Your task to perform on an android device: Open location settings Image 0: 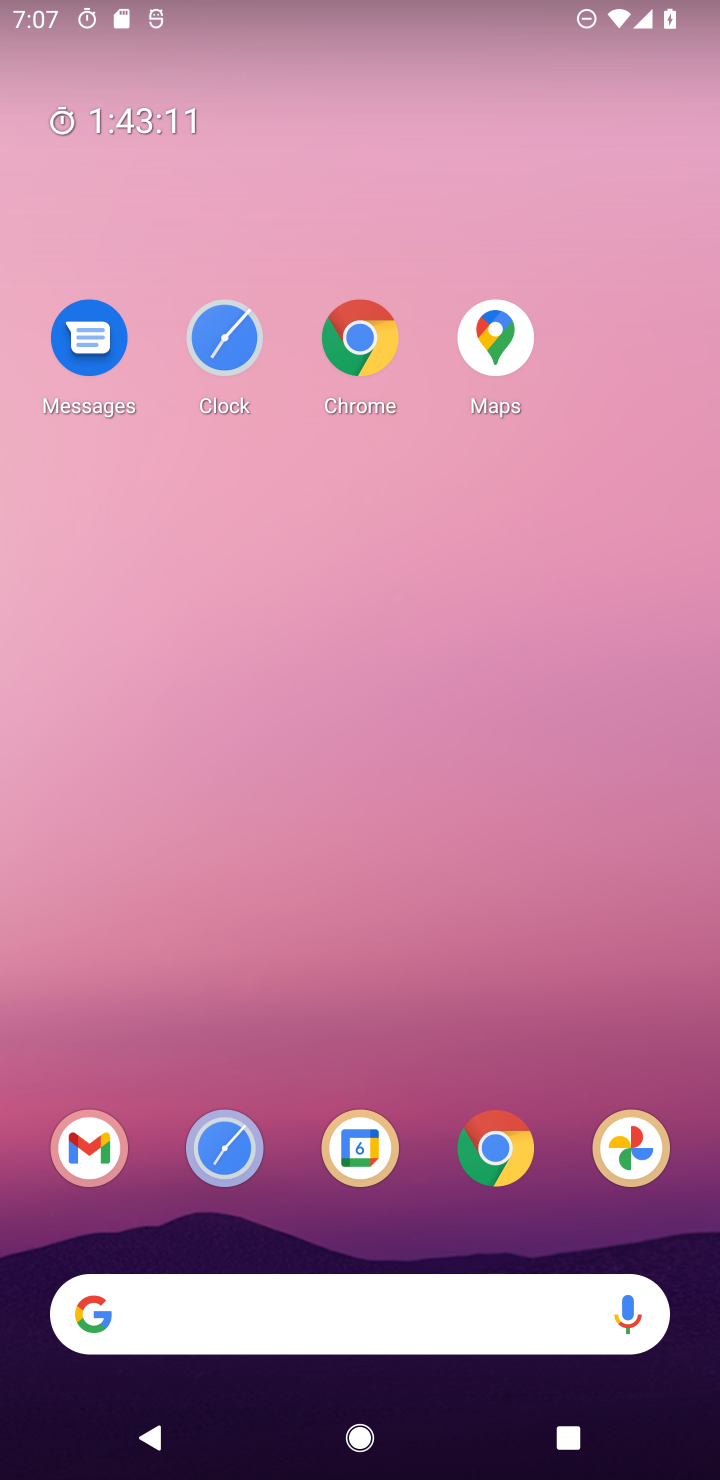
Step 0: drag from (389, 1211) to (481, 331)
Your task to perform on an android device: Open location settings Image 1: 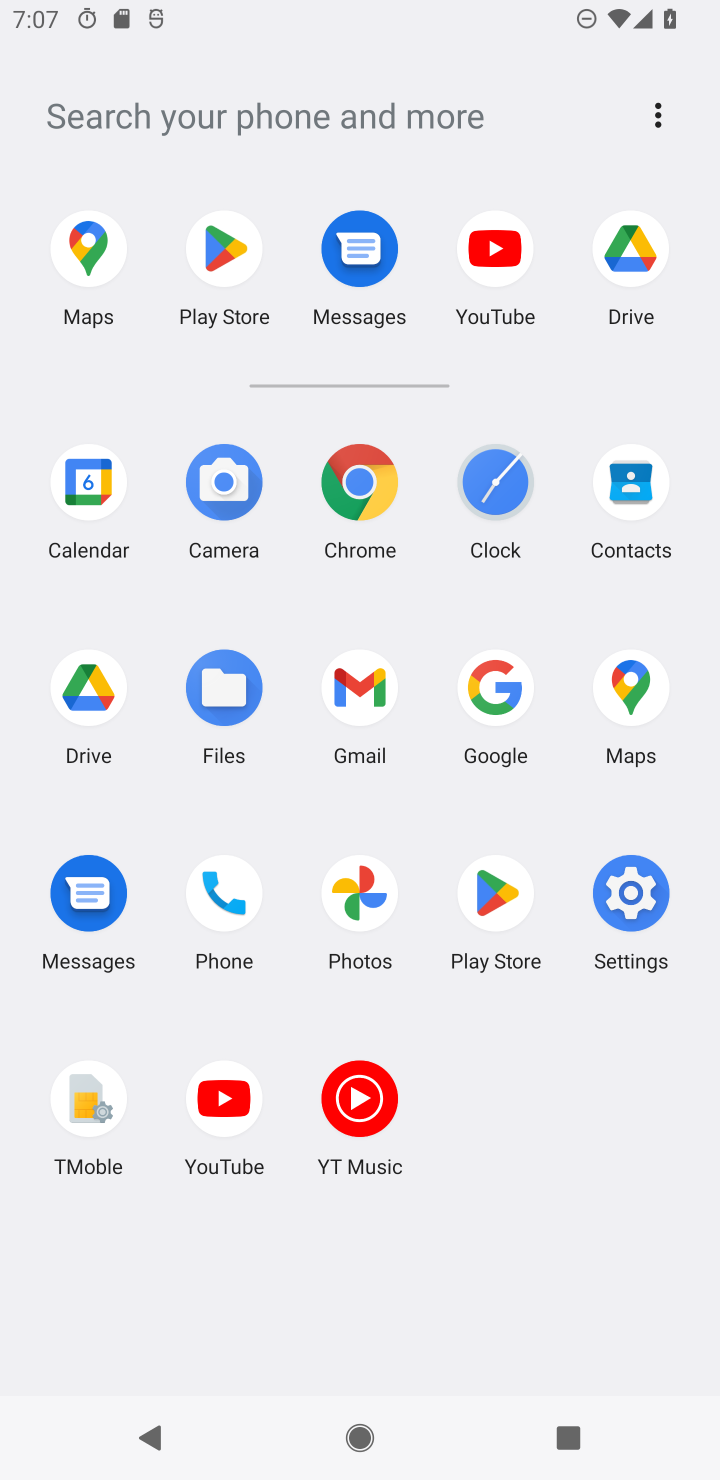
Step 1: click (492, 489)
Your task to perform on an android device: Open location settings Image 2: 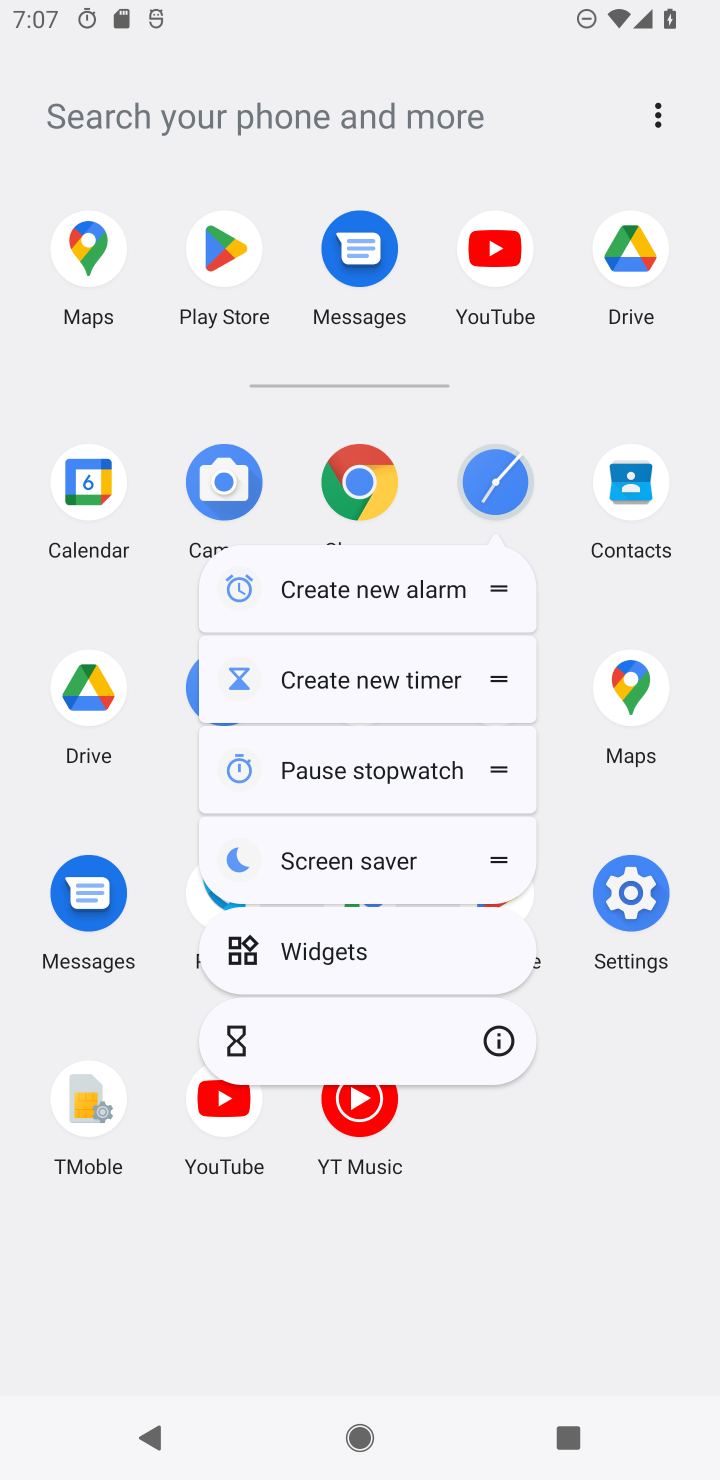
Step 2: click (632, 896)
Your task to perform on an android device: Open location settings Image 3: 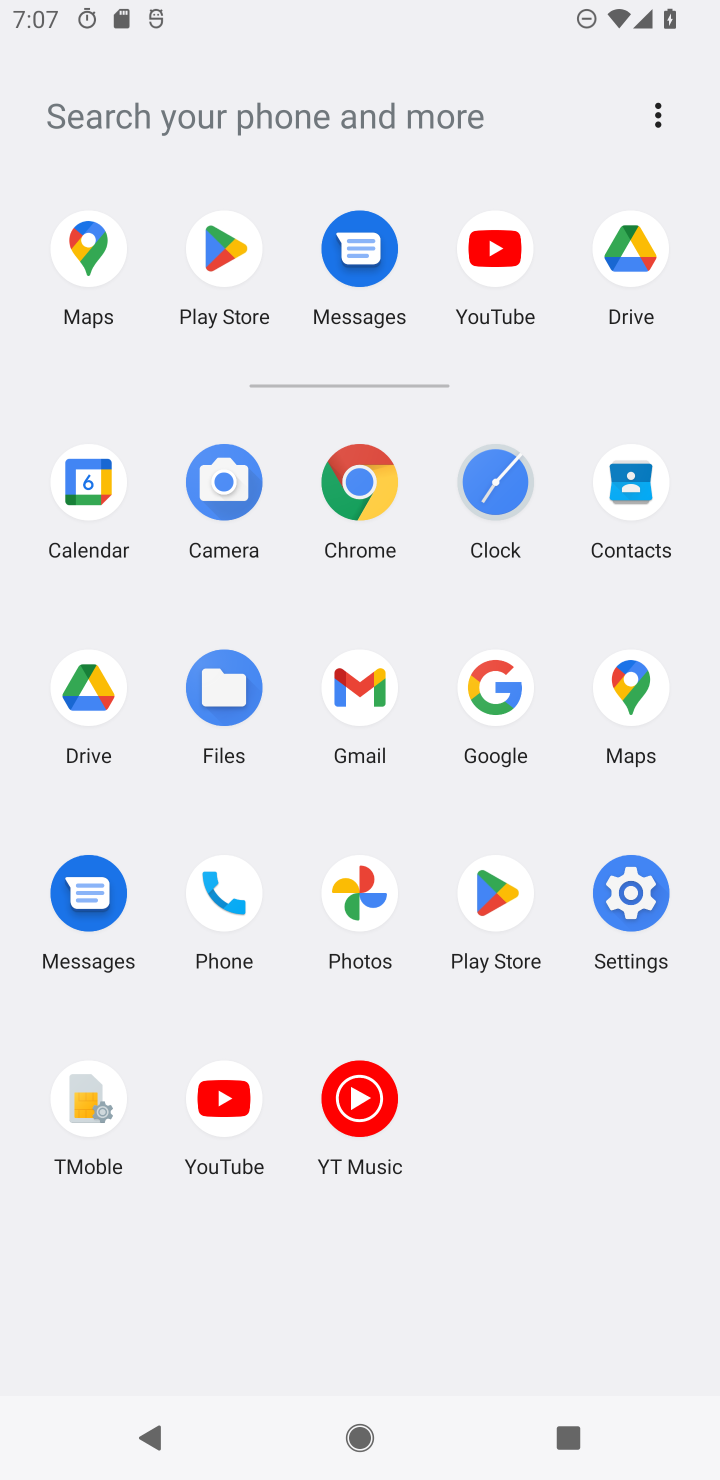
Step 3: click (632, 896)
Your task to perform on an android device: Open location settings Image 4: 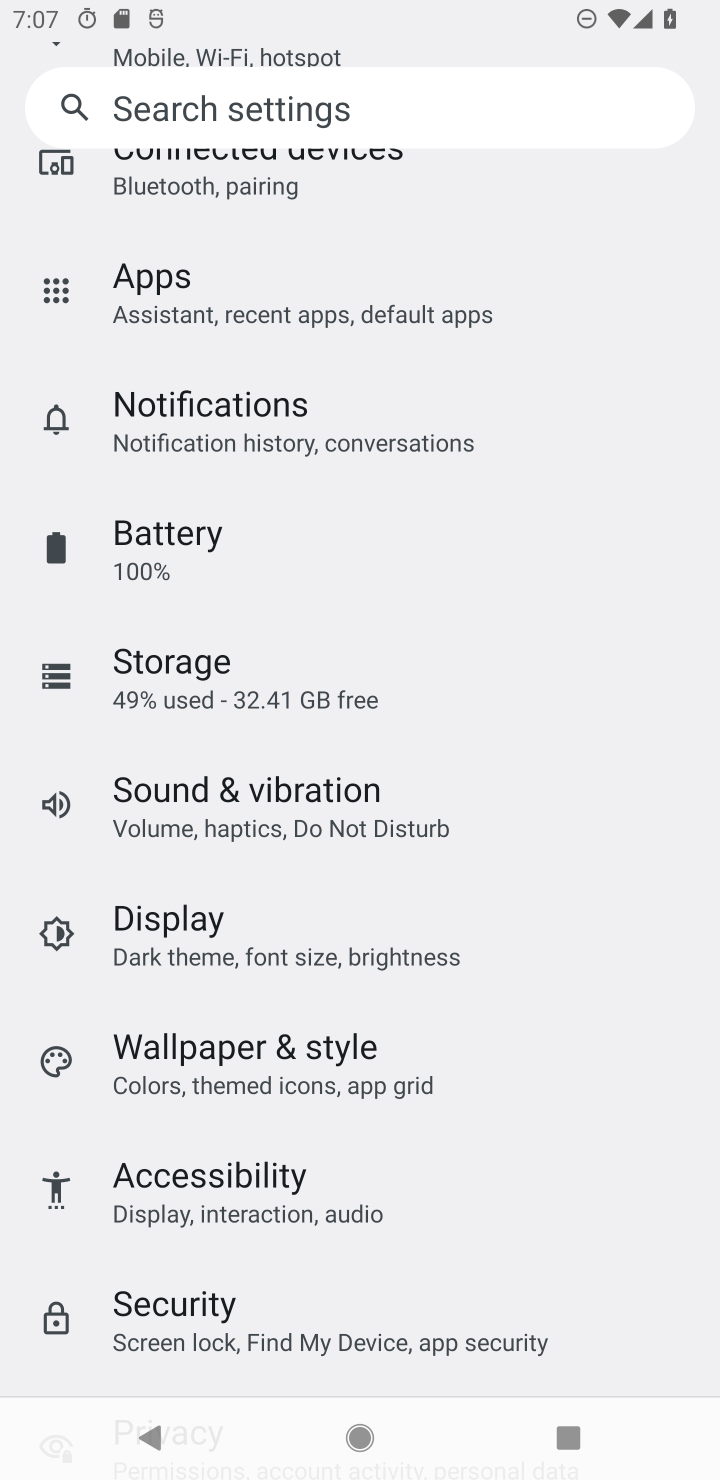
Step 4: drag from (366, 687) to (468, 1469)
Your task to perform on an android device: Open location settings Image 5: 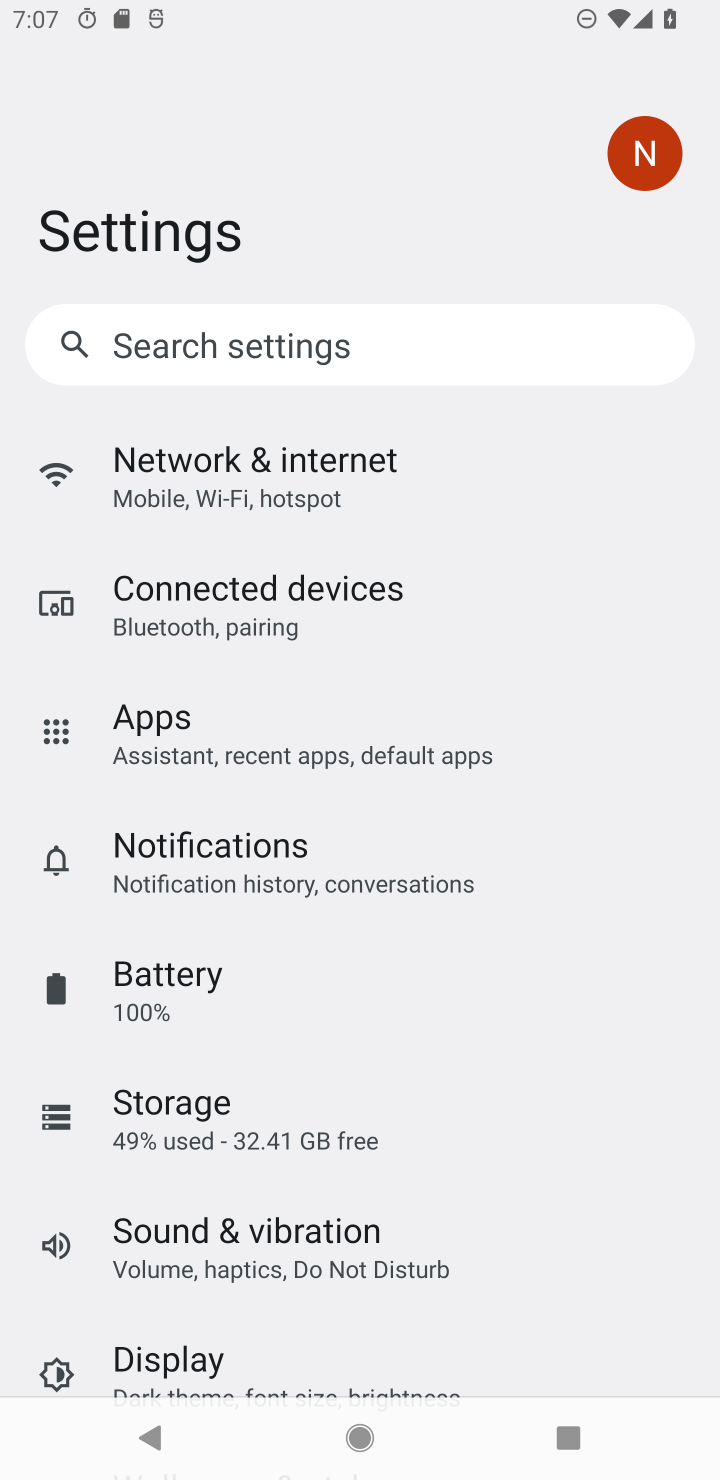
Step 5: drag from (370, 841) to (464, 513)
Your task to perform on an android device: Open location settings Image 6: 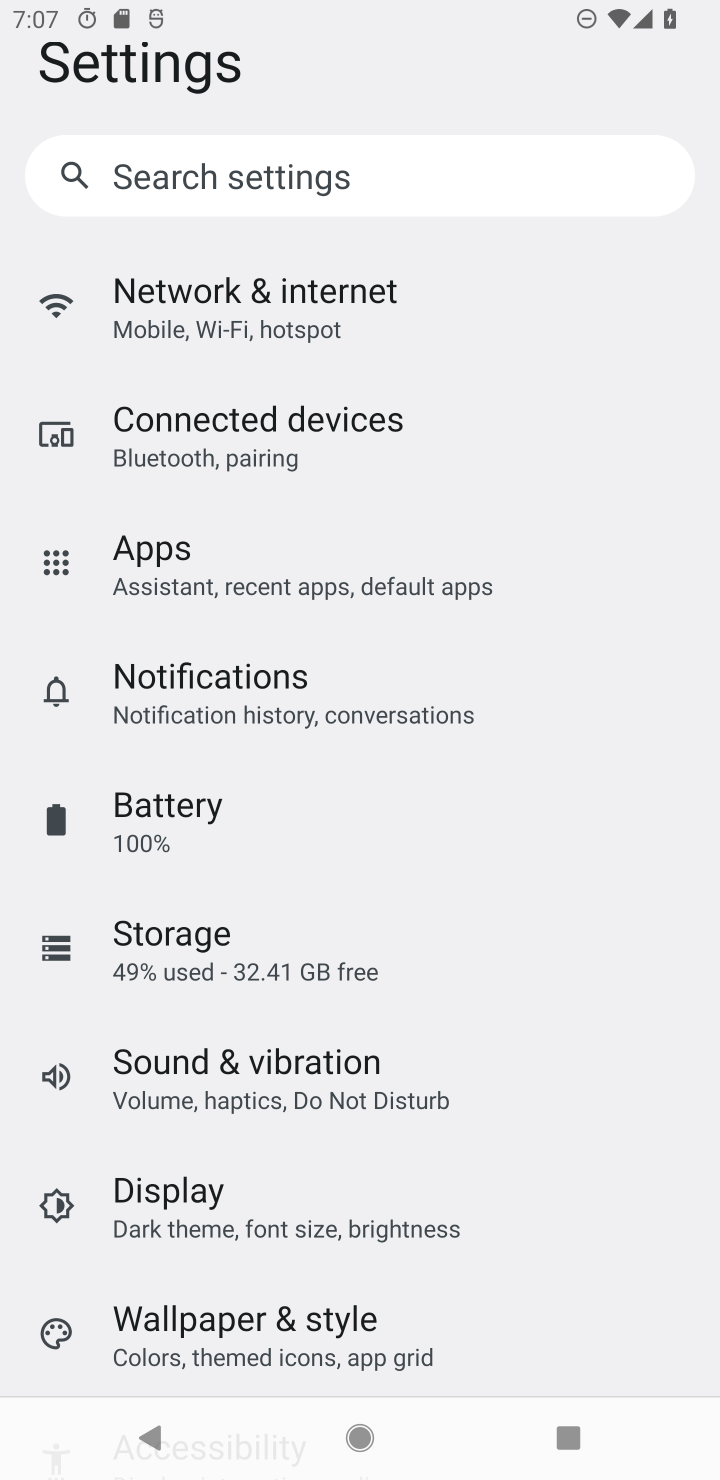
Step 6: drag from (265, 1183) to (316, 383)
Your task to perform on an android device: Open location settings Image 7: 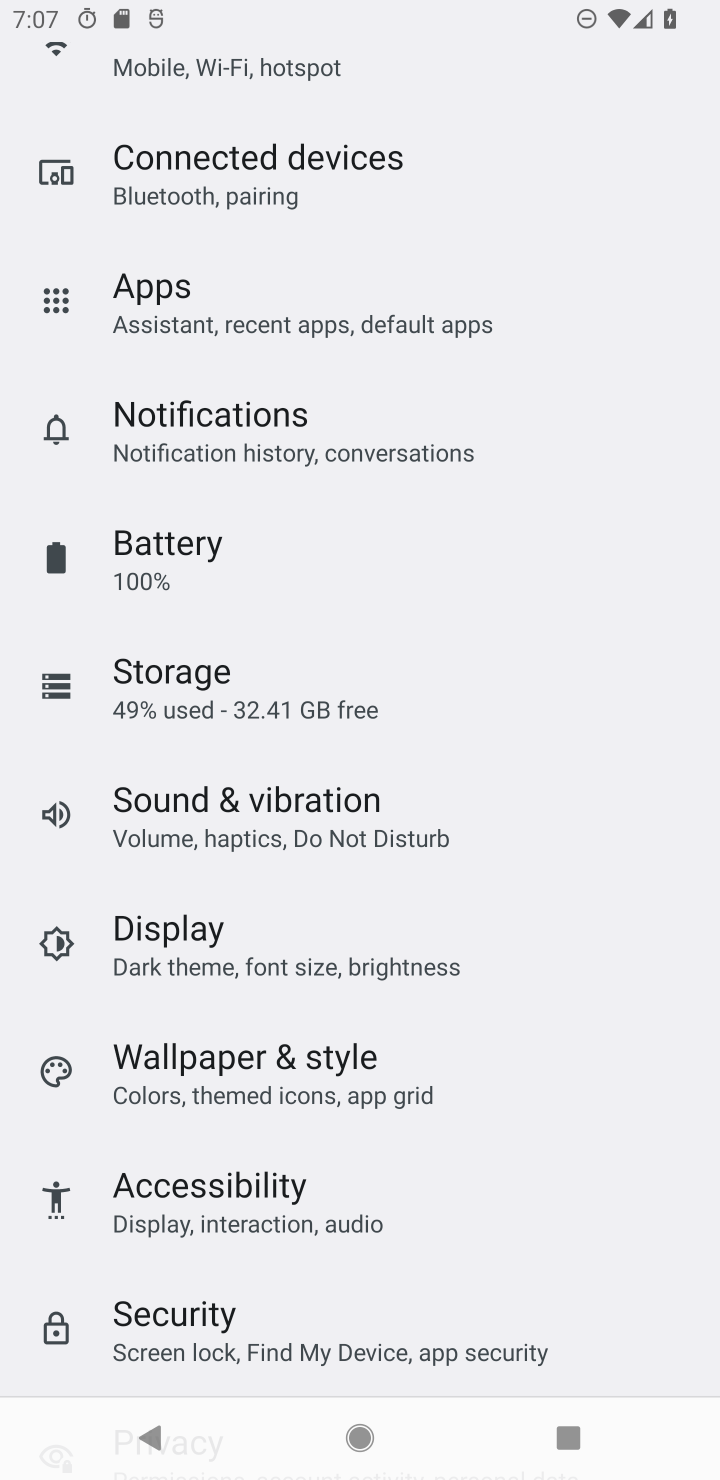
Step 7: drag from (318, 1148) to (407, 436)
Your task to perform on an android device: Open location settings Image 8: 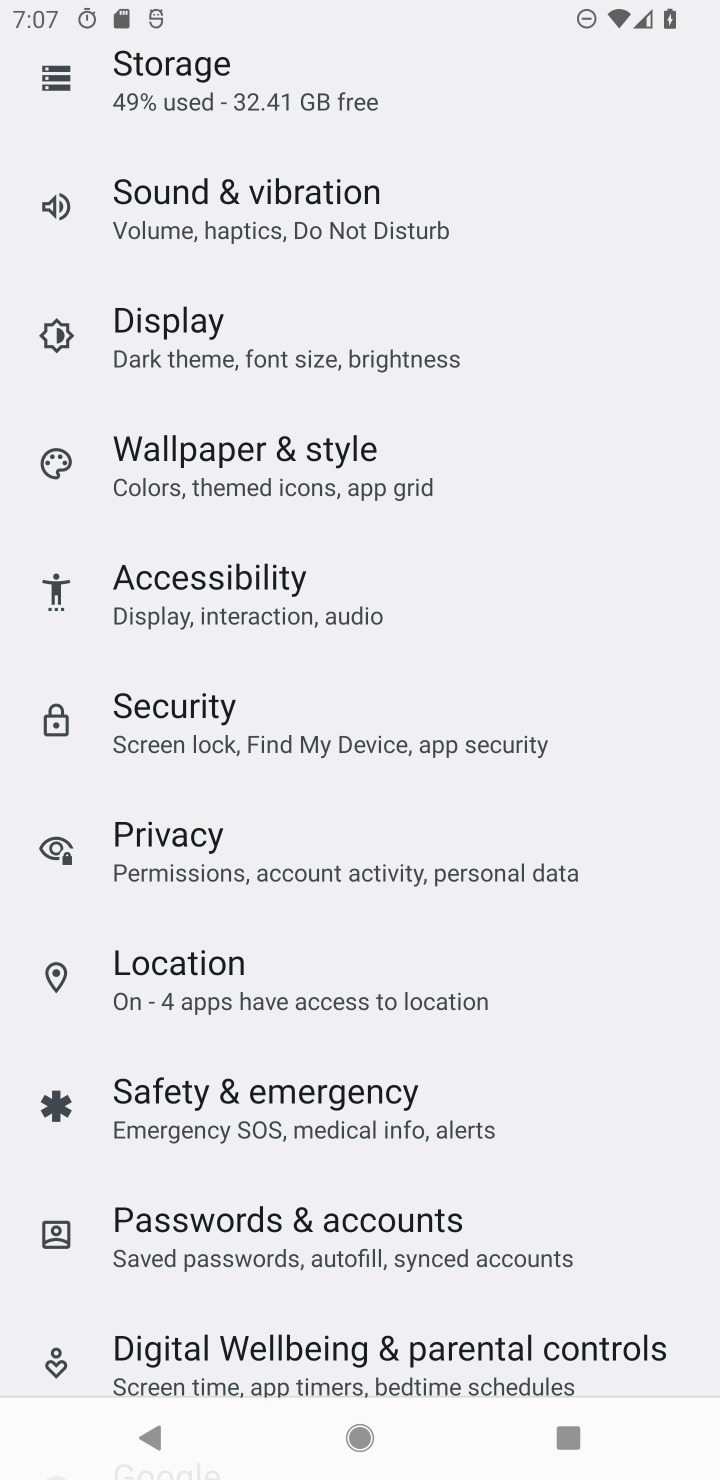
Step 8: drag from (303, 1094) to (473, 463)
Your task to perform on an android device: Open location settings Image 9: 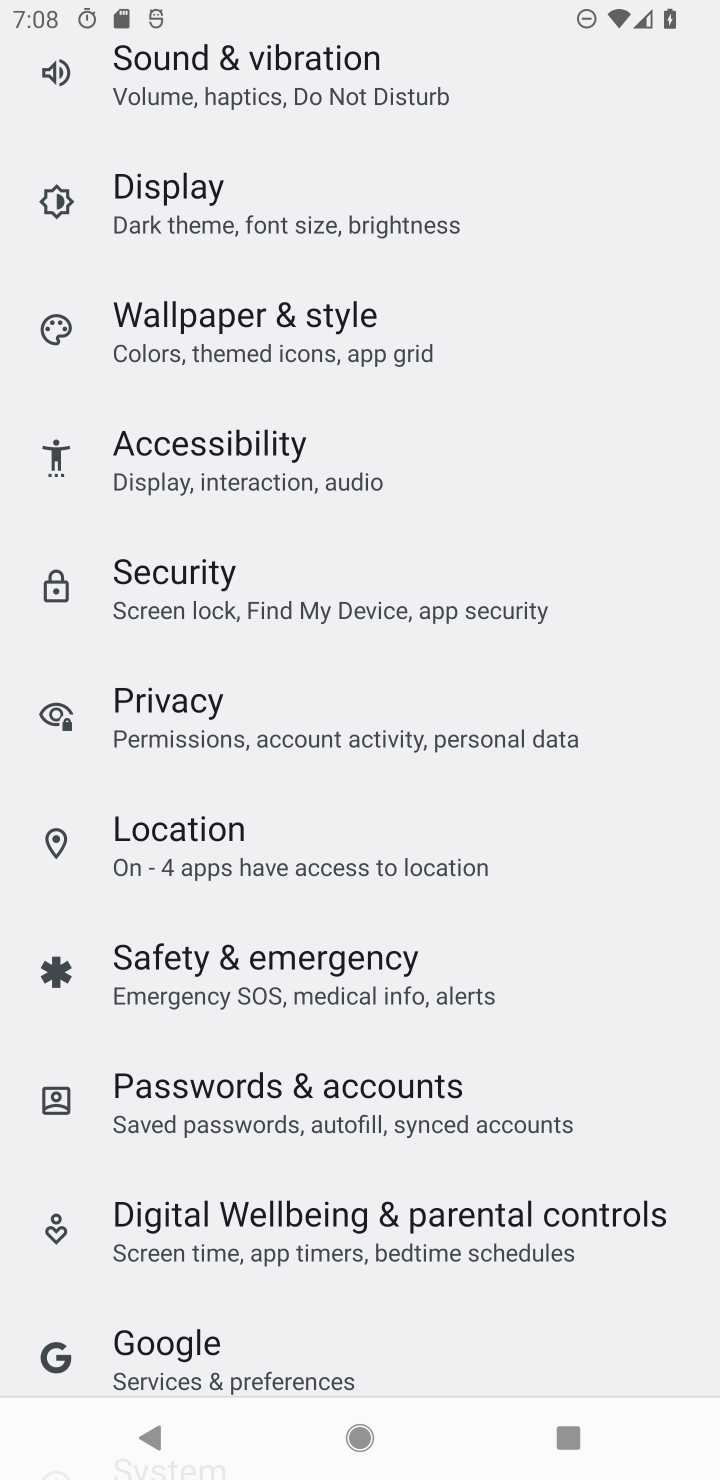
Step 9: click (242, 853)
Your task to perform on an android device: Open location settings Image 10: 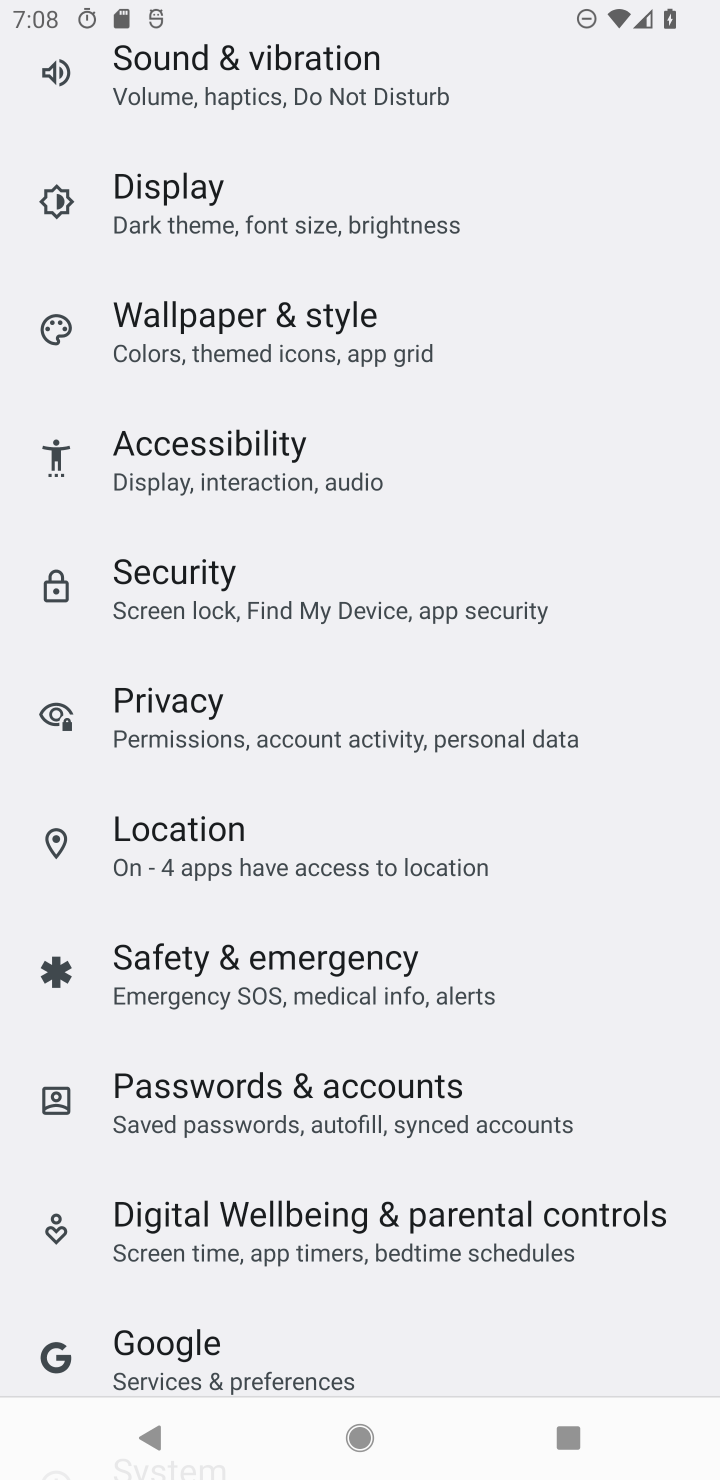
Step 10: task complete